Your task to perform on an android device: Open the map Image 0: 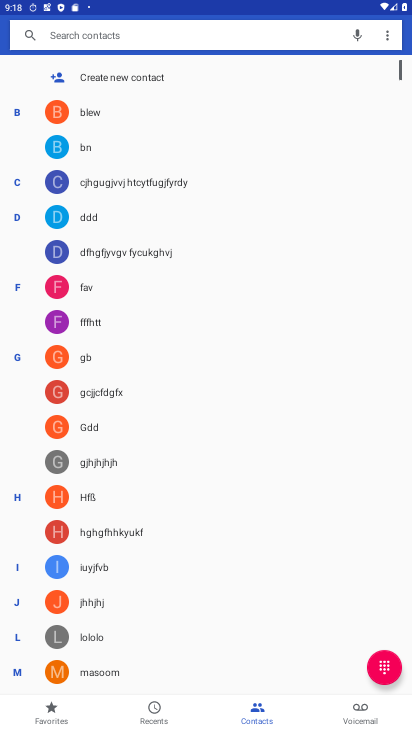
Step 0: press home button
Your task to perform on an android device: Open the map Image 1: 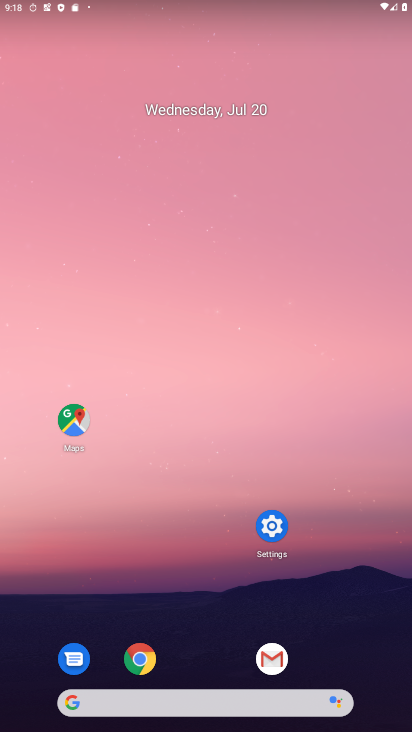
Step 1: click (65, 417)
Your task to perform on an android device: Open the map Image 2: 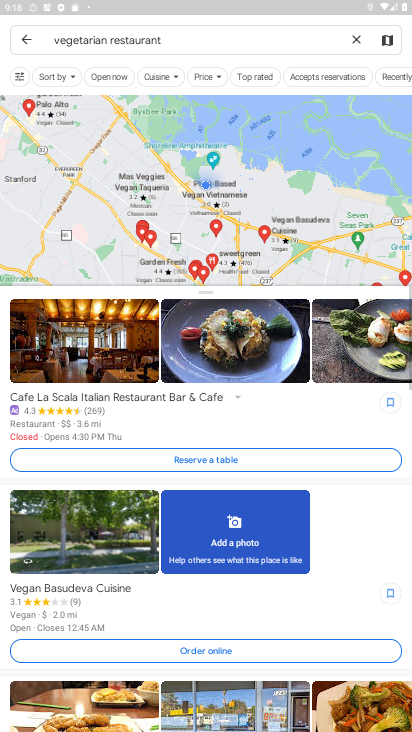
Step 2: click (25, 42)
Your task to perform on an android device: Open the map Image 3: 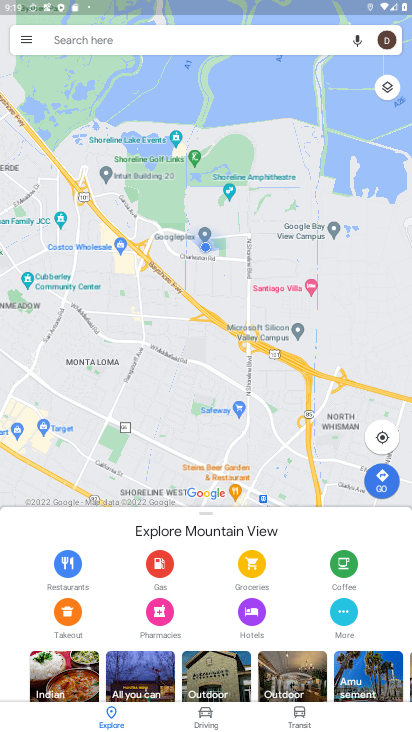
Step 3: task complete